Your task to perform on an android device: Open Chrome and go to the settings page Image 0: 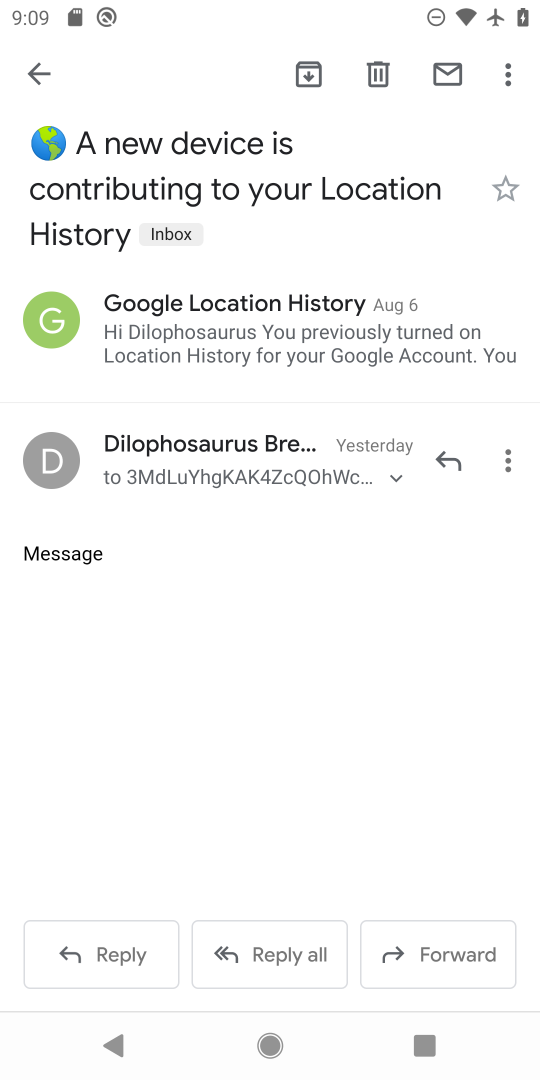
Step 0: press home button
Your task to perform on an android device: Open Chrome and go to the settings page Image 1: 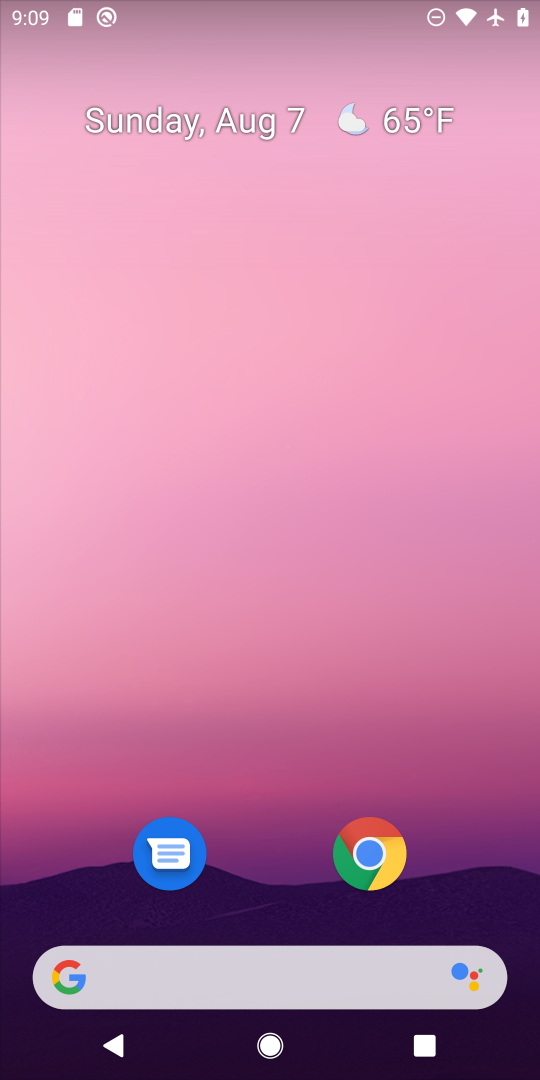
Step 1: drag from (297, 945) to (350, 170)
Your task to perform on an android device: Open Chrome and go to the settings page Image 2: 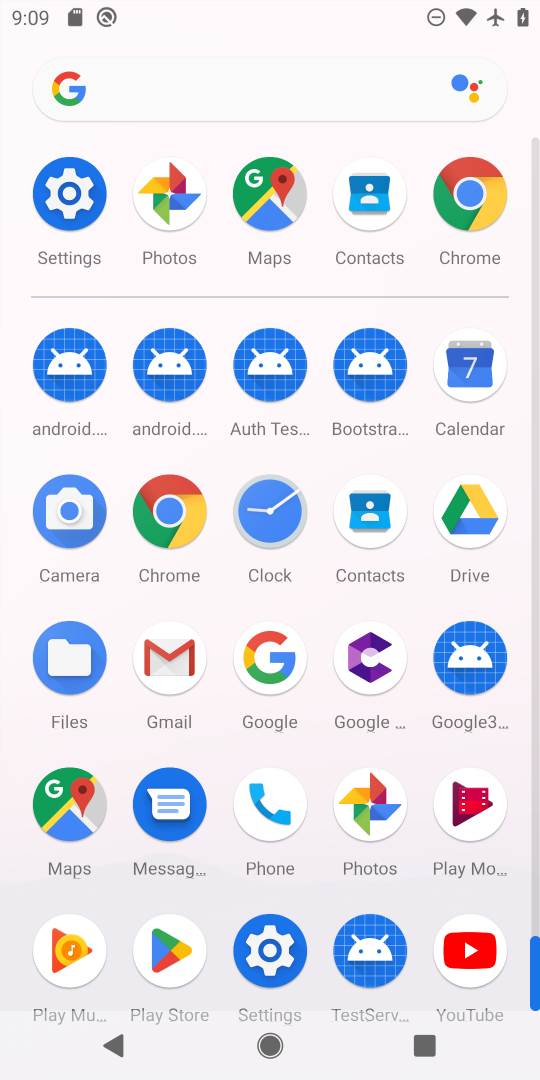
Step 2: click (472, 218)
Your task to perform on an android device: Open Chrome and go to the settings page Image 3: 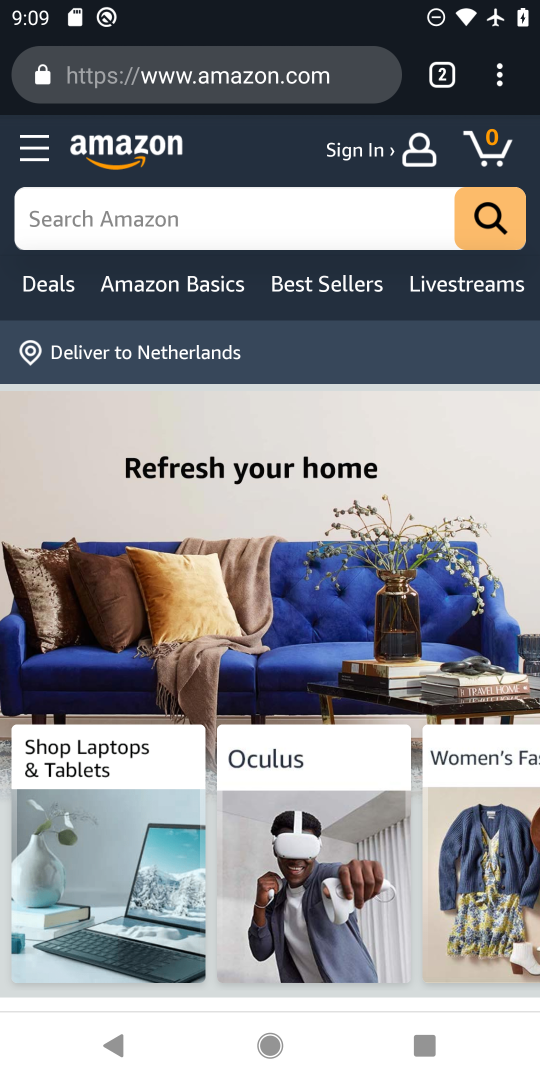
Step 3: click (502, 78)
Your task to perform on an android device: Open Chrome and go to the settings page Image 4: 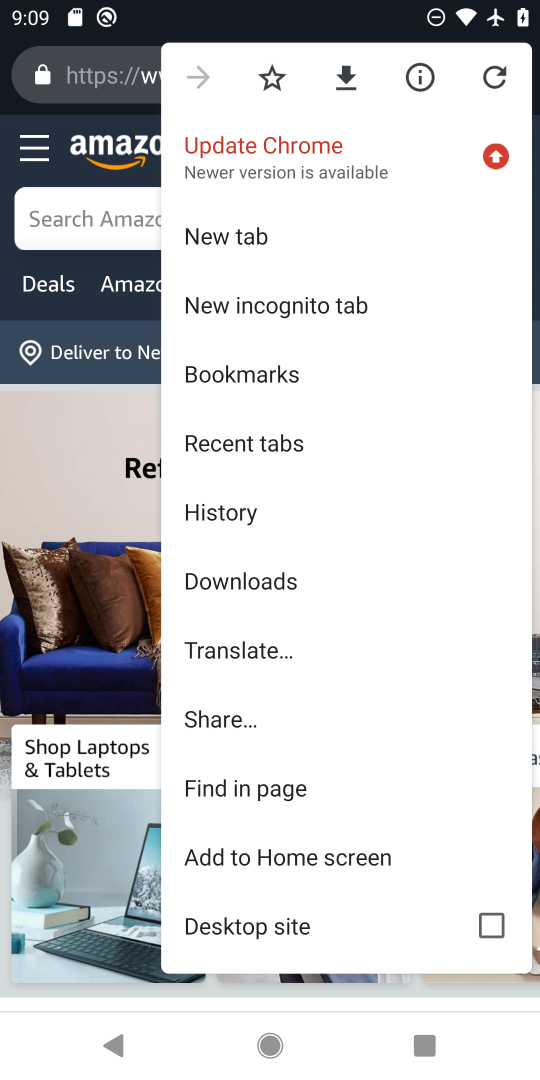
Step 4: drag from (315, 834) to (314, 323)
Your task to perform on an android device: Open Chrome and go to the settings page Image 5: 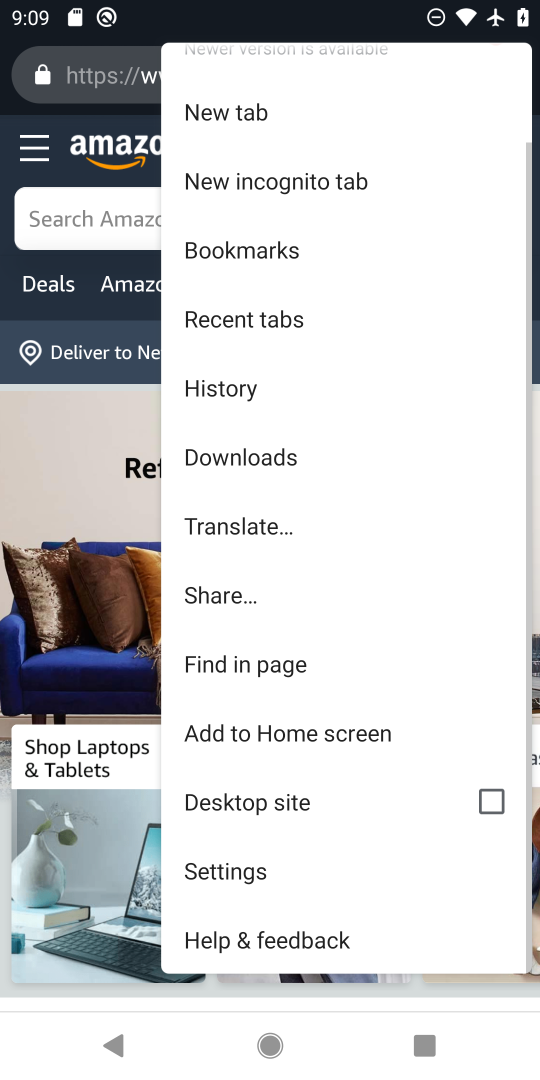
Step 5: click (233, 867)
Your task to perform on an android device: Open Chrome and go to the settings page Image 6: 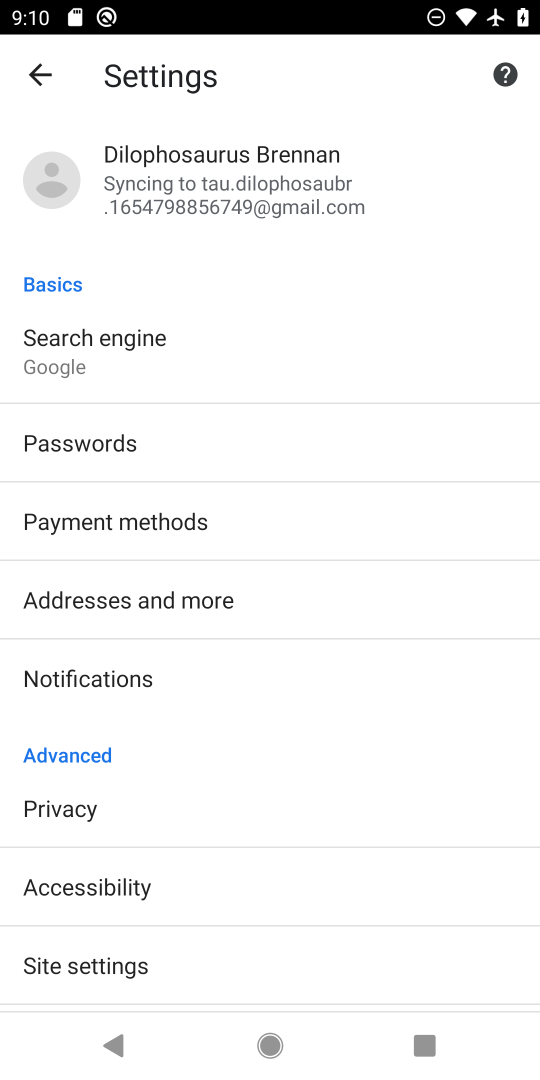
Step 6: task complete